Your task to perform on an android device: open chrome privacy settings Image 0: 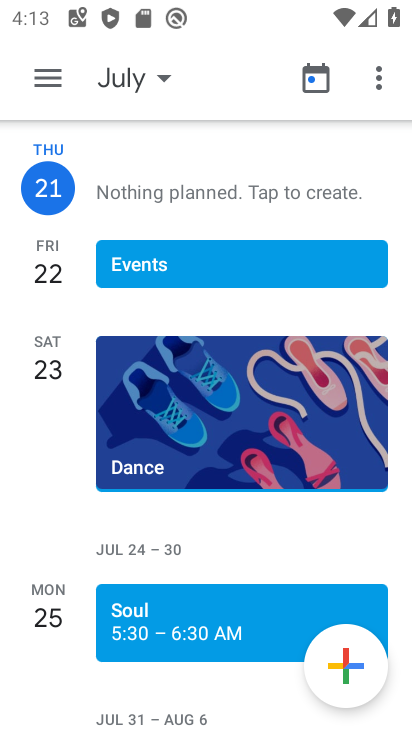
Step 0: press back button
Your task to perform on an android device: open chrome privacy settings Image 1: 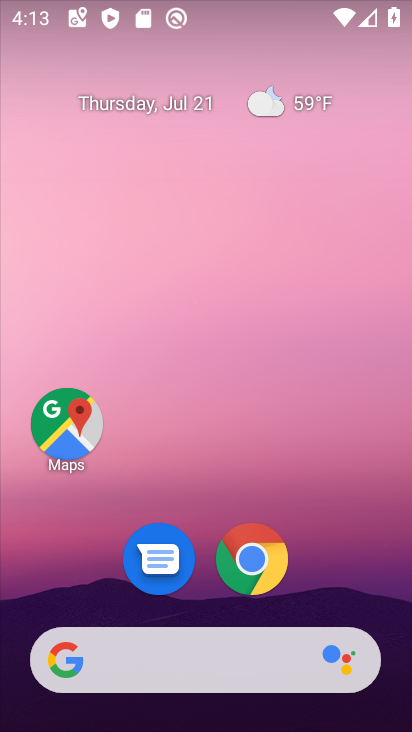
Step 1: click (234, 559)
Your task to perform on an android device: open chrome privacy settings Image 2: 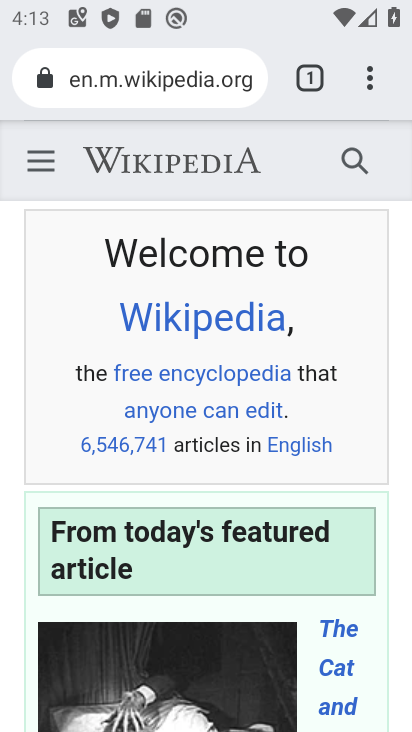
Step 2: drag from (371, 76) to (111, 618)
Your task to perform on an android device: open chrome privacy settings Image 3: 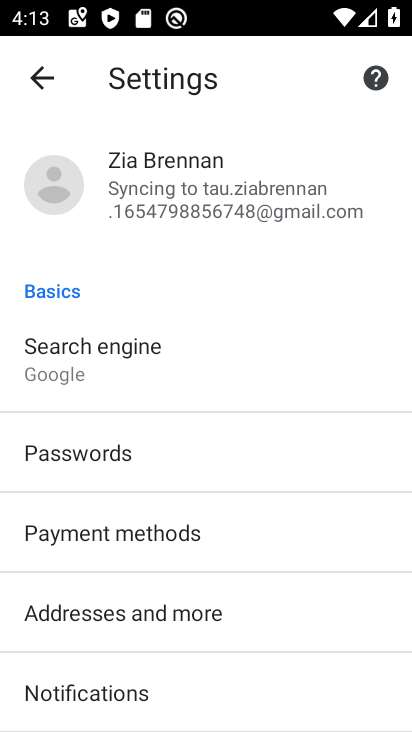
Step 3: drag from (94, 670) to (180, 277)
Your task to perform on an android device: open chrome privacy settings Image 4: 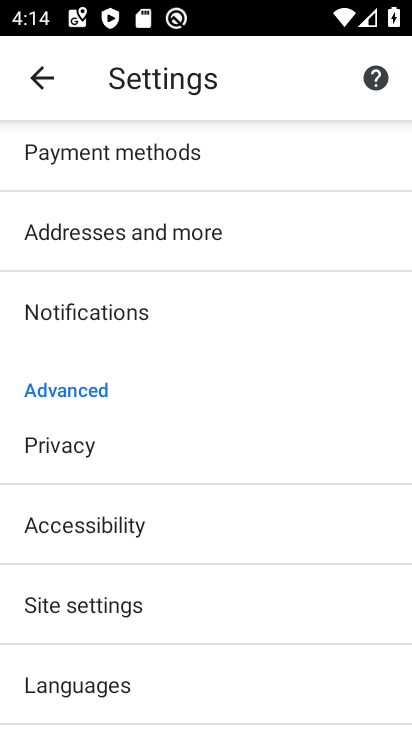
Step 4: click (73, 445)
Your task to perform on an android device: open chrome privacy settings Image 5: 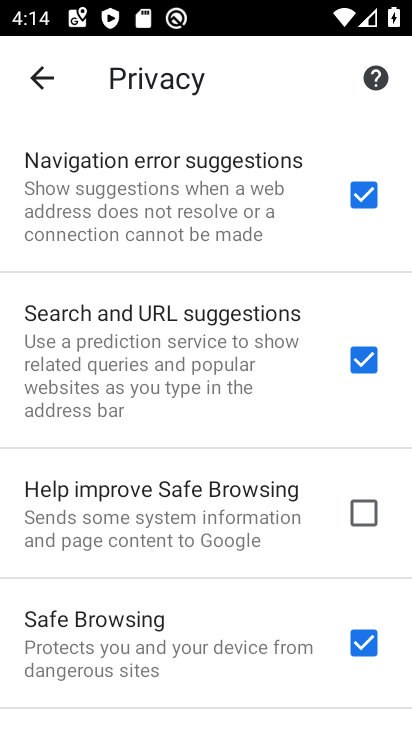
Step 5: task complete